Your task to perform on an android device: Empty the shopping cart on walmart.com. Search for "logitech g903" on walmart.com, select the first entry, and add it to the cart. Image 0: 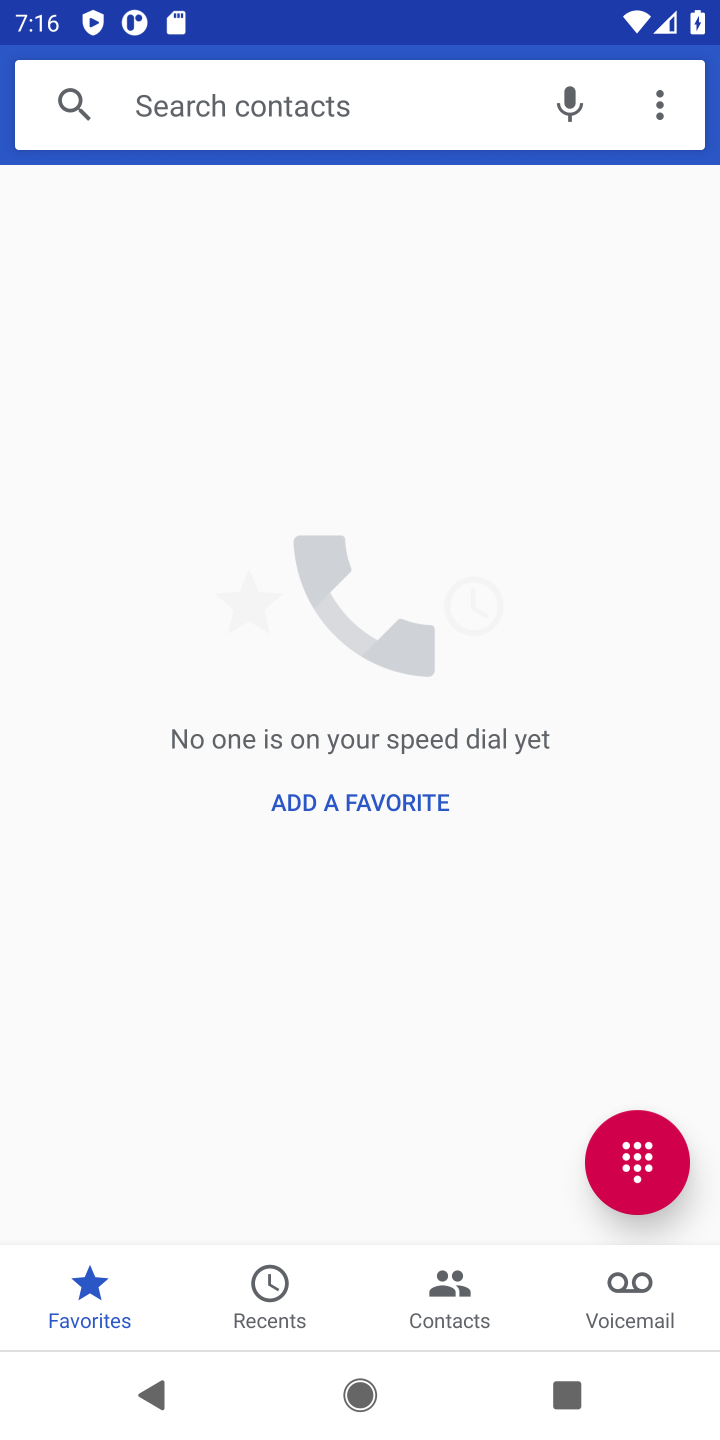
Step 0: press home button
Your task to perform on an android device: Empty the shopping cart on walmart.com. Search for "logitech g903" on walmart.com, select the first entry, and add it to the cart. Image 1: 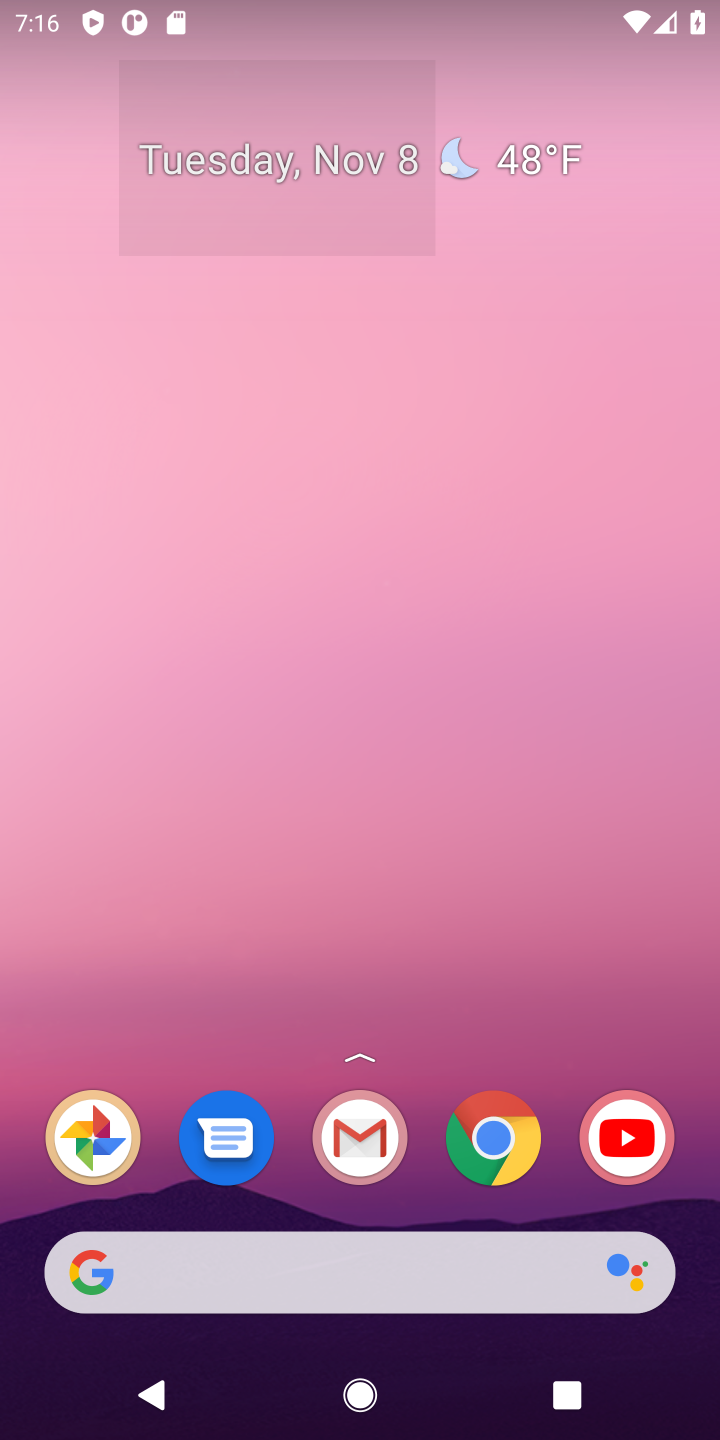
Step 1: click (490, 1135)
Your task to perform on an android device: Empty the shopping cart on walmart.com. Search for "logitech g903" on walmart.com, select the first entry, and add it to the cart. Image 2: 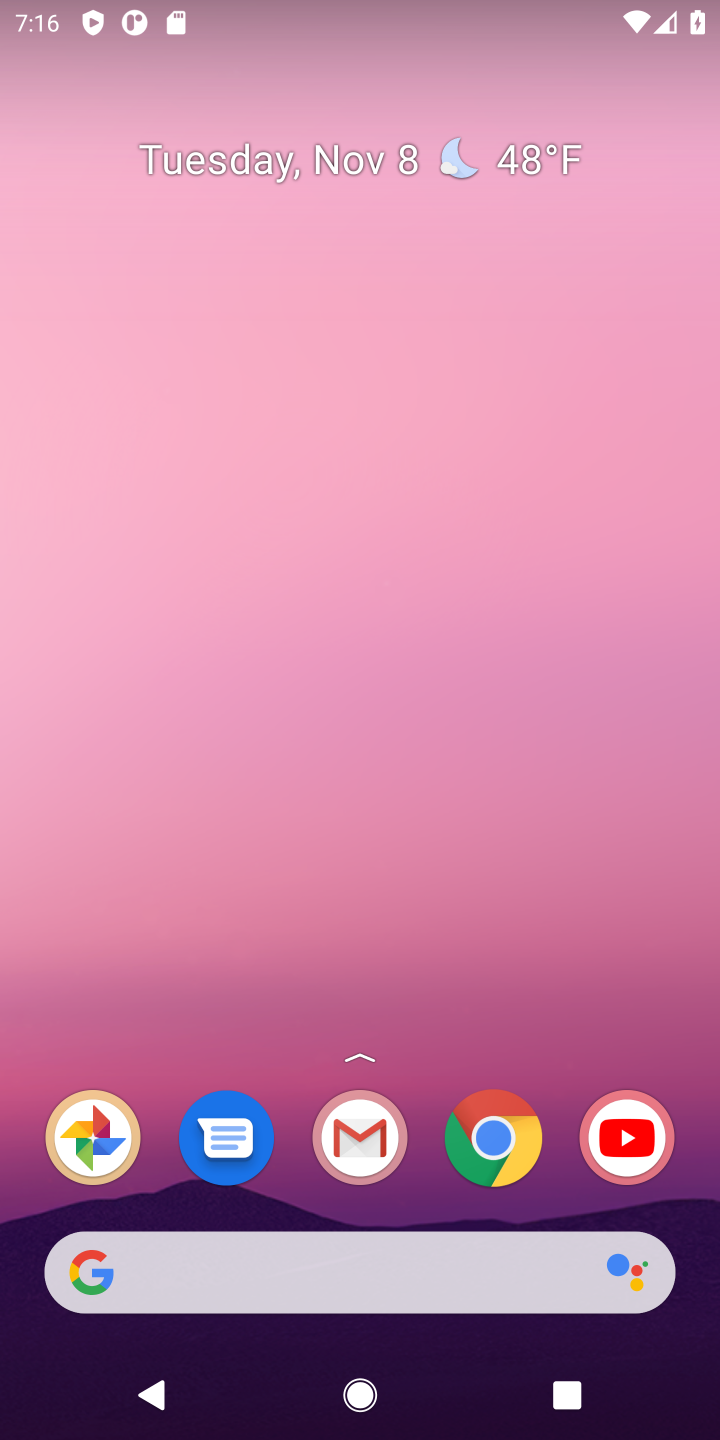
Step 2: click (490, 1139)
Your task to perform on an android device: Empty the shopping cart on walmart.com. Search for "logitech g903" on walmart.com, select the first entry, and add it to the cart. Image 3: 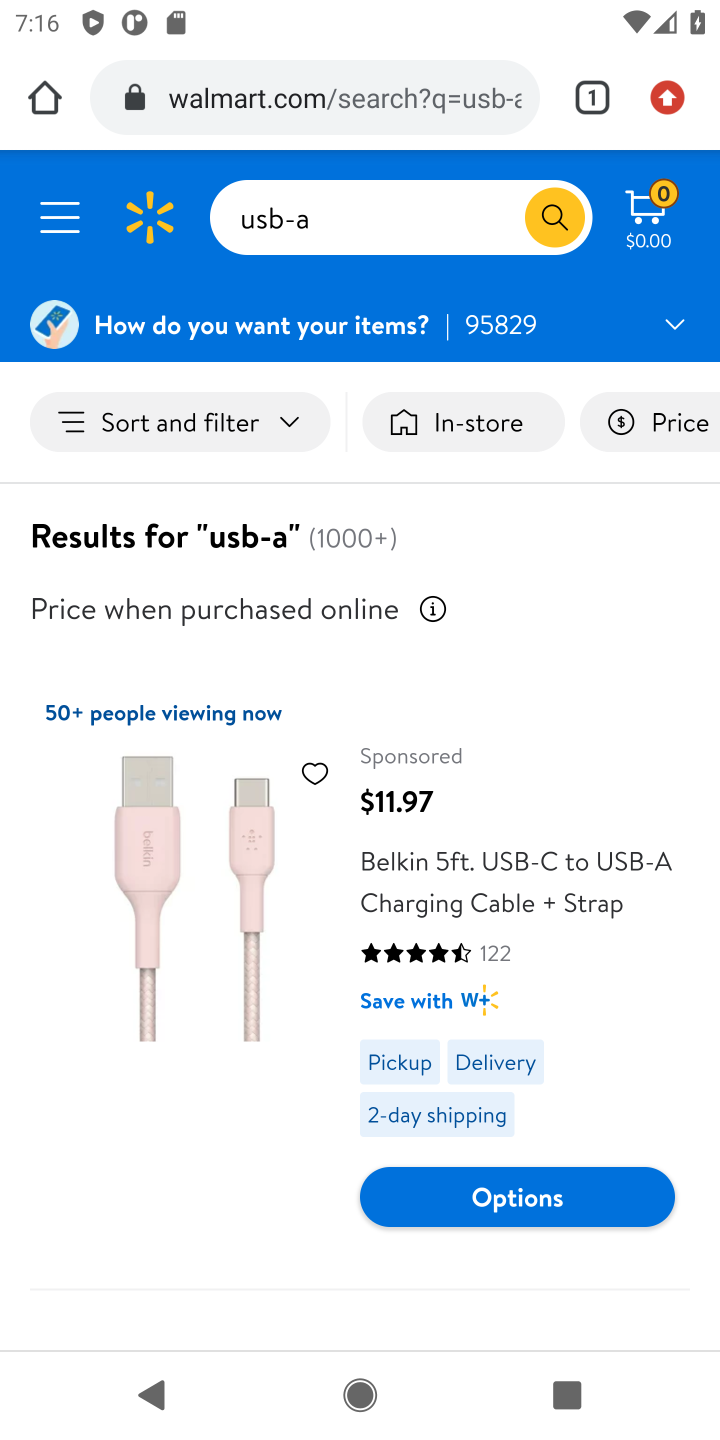
Step 3: click (330, 207)
Your task to perform on an android device: Empty the shopping cart on walmart.com. Search for "logitech g903" on walmart.com, select the first entry, and add it to the cart. Image 4: 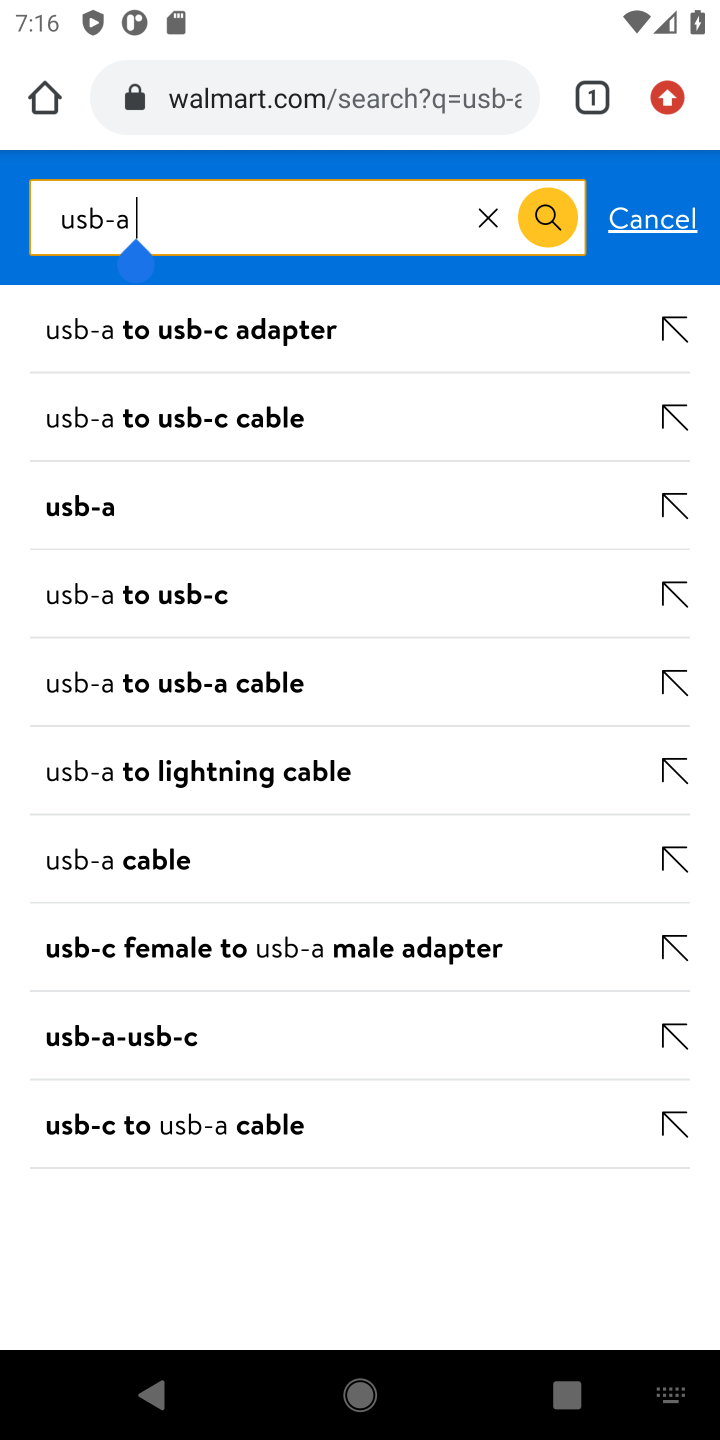
Step 4: click (492, 209)
Your task to perform on an android device: Empty the shopping cart on walmart.com. Search for "logitech g903" on walmart.com, select the first entry, and add it to the cart. Image 5: 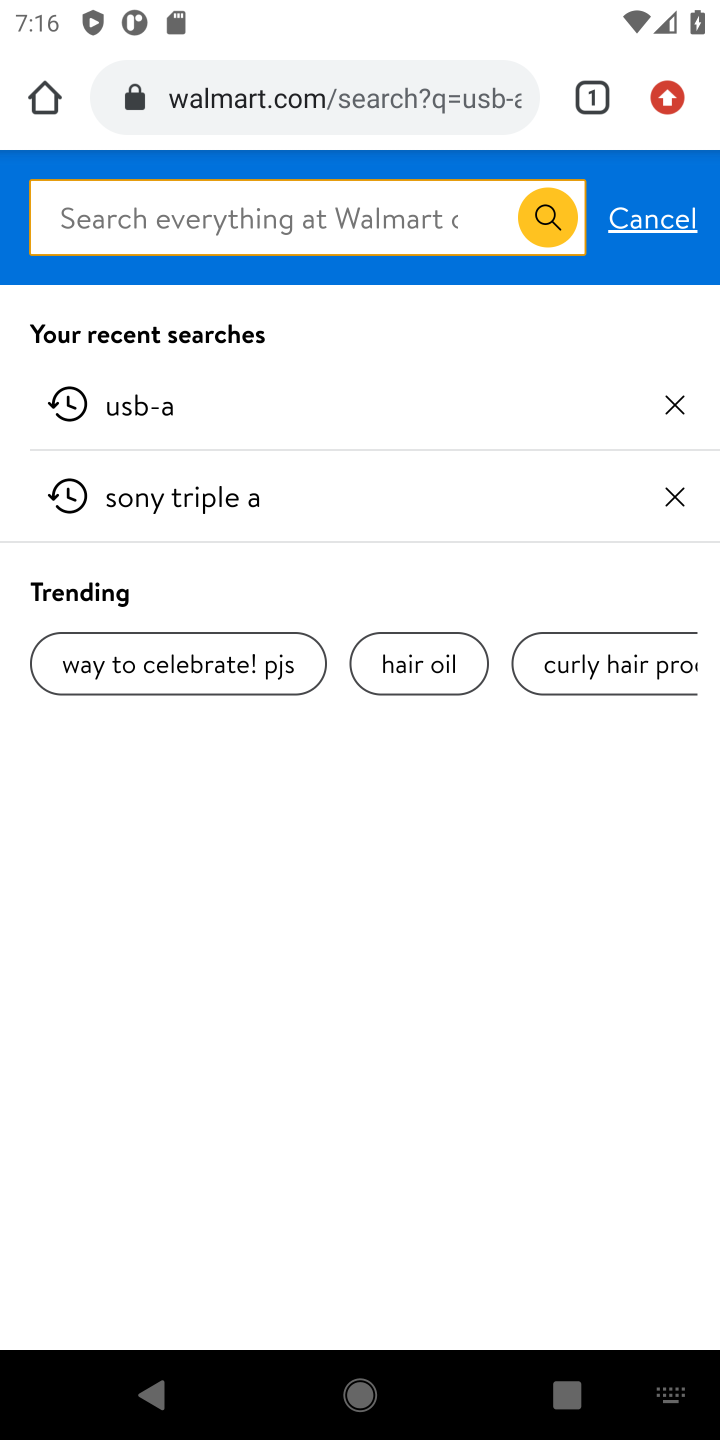
Step 5: type "logitech g903"
Your task to perform on an android device: Empty the shopping cart on walmart.com. Search for "logitech g903" on walmart.com, select the first entry, and add it to the cart. Image 6: 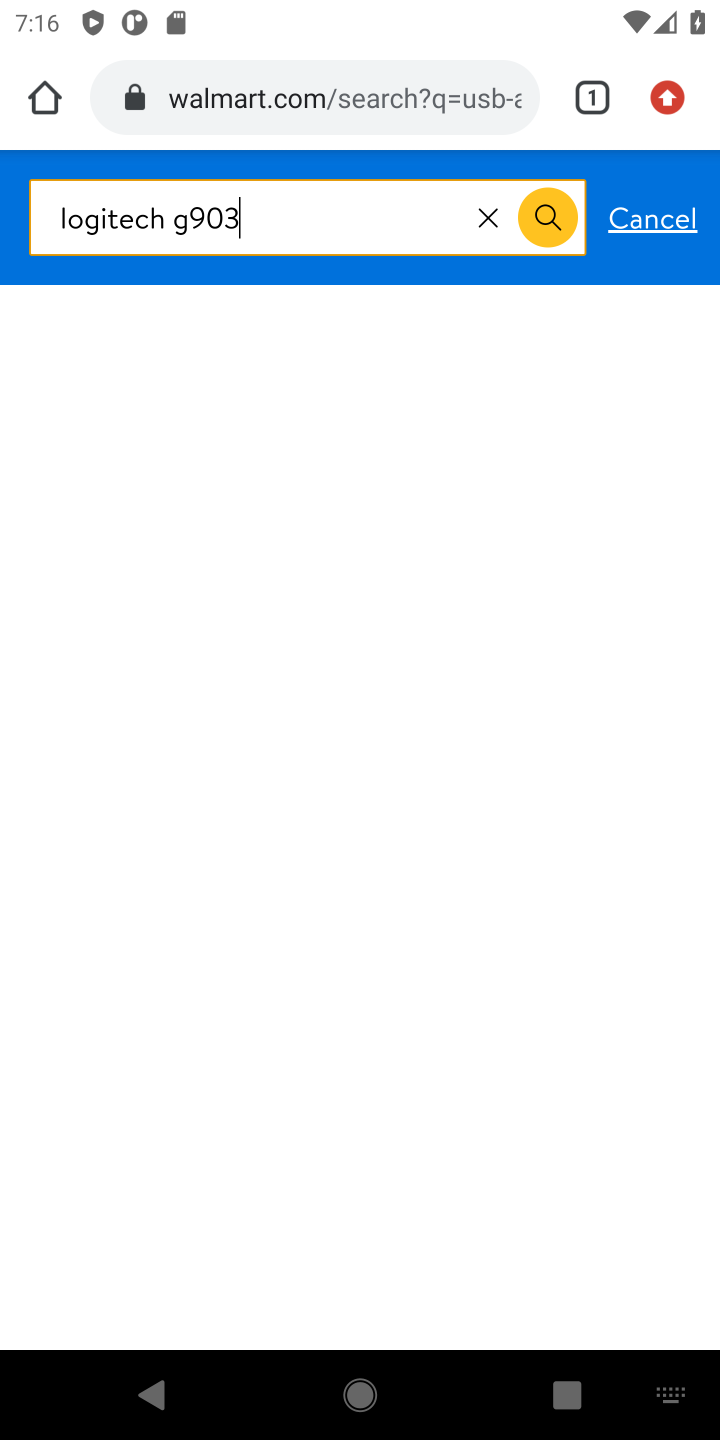
Step 6: press enter
Your task to perform on an android device: Empty the shopping cart on walmart.com. Search for "logitech g903" on walmart.com, select the first entry, and add it to the cart. Image 7: 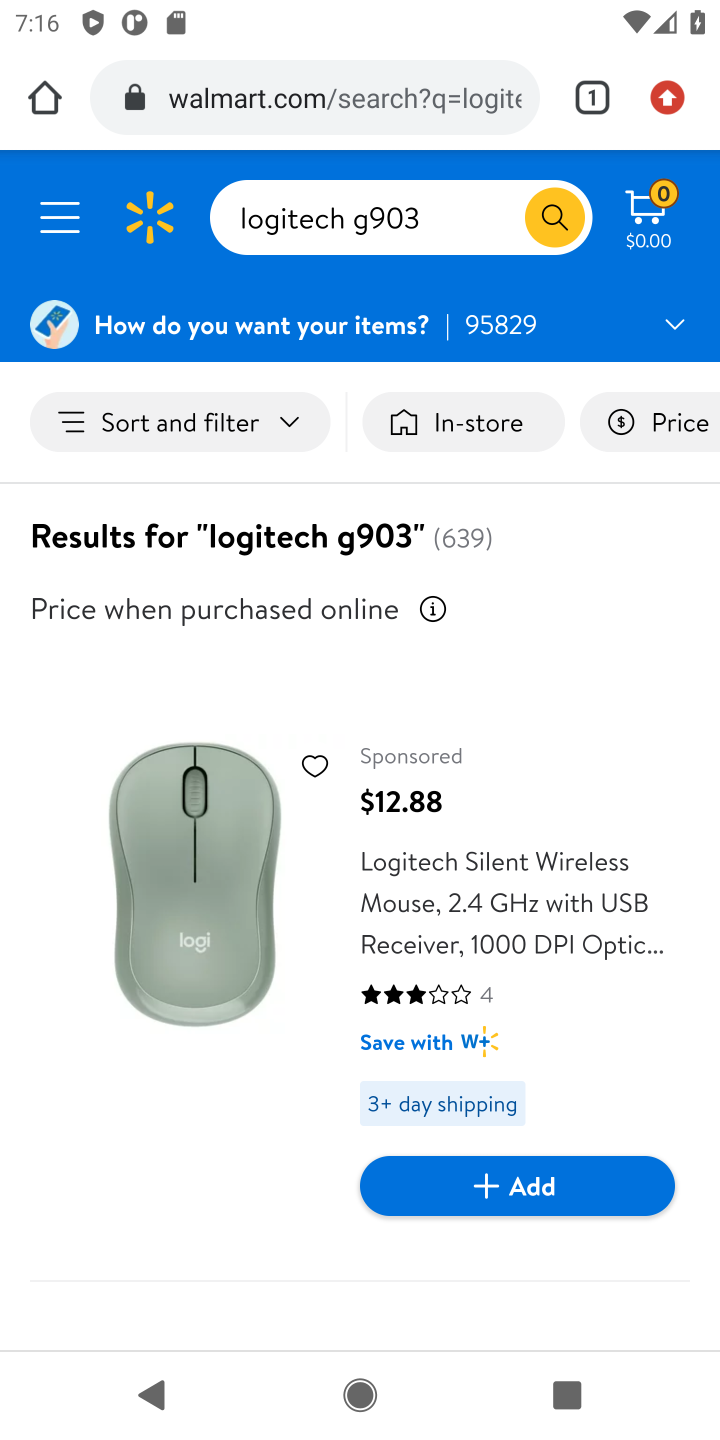
Step 7: task complete